Your task to perform on an android device: Open location settings Image 0: 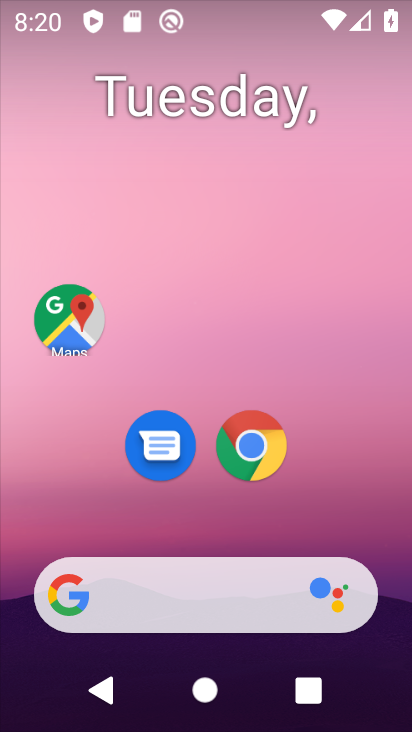
Step 0: drag from (386, 615) to (128, 11)
Your task to perform on an android device: Open location settings Image 1: 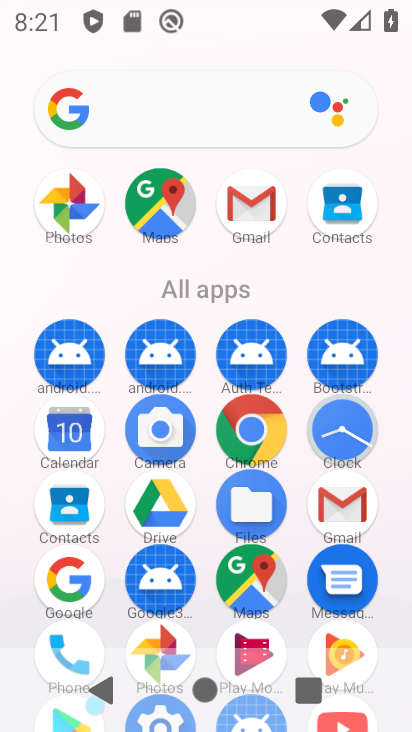
Step 1: click (137, 233)
Your task to perform on an android device: Open location settings Image 2: 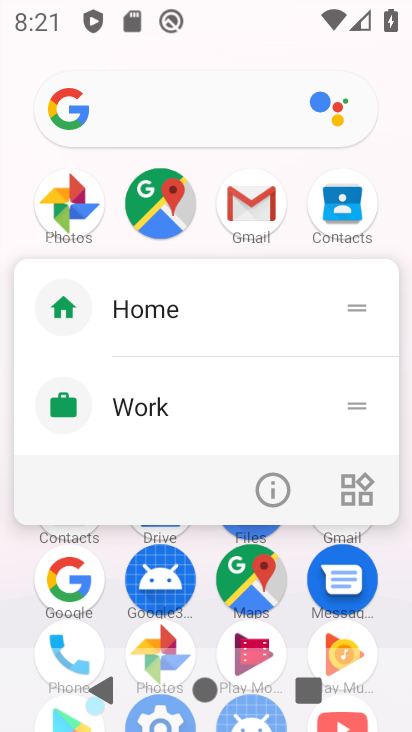
Step 2: click (165, 206)
Your task to perform on an android device: Open location settings Image 3: 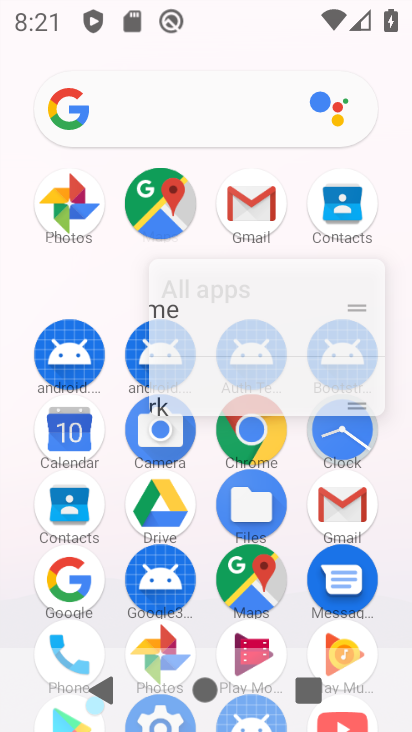
Step 3: click (166, 207)
Your task to perform on an android device: Open location settings Image 4: 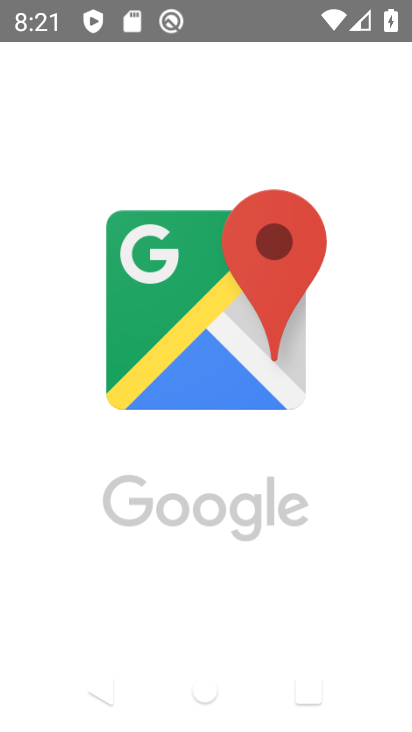
Step 4: click (166, 207)
Your task to perform on an android device: Open location settings Image 5: 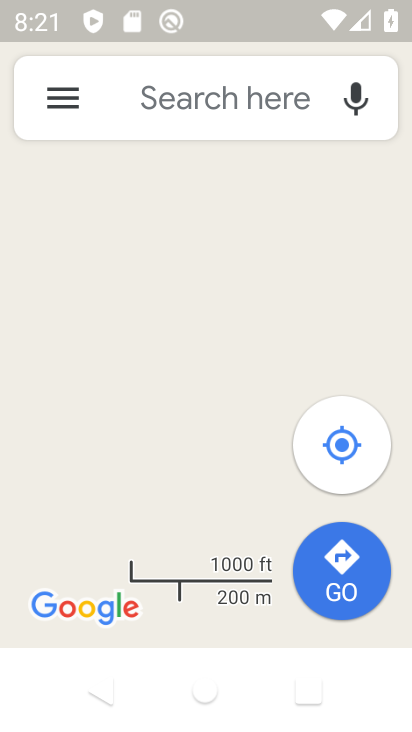
Step 5: click (62, 94)
Your task to perform on an android device: Open location settings Image 6: 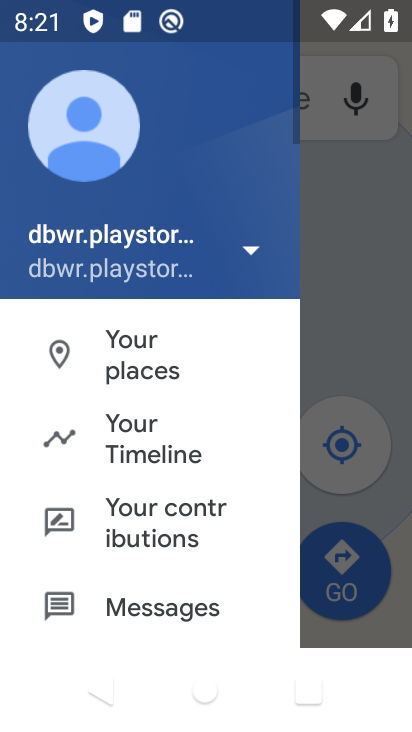
Step 6: click (148, 449)
Your task to perform on an android device: Open location settings Image 7: 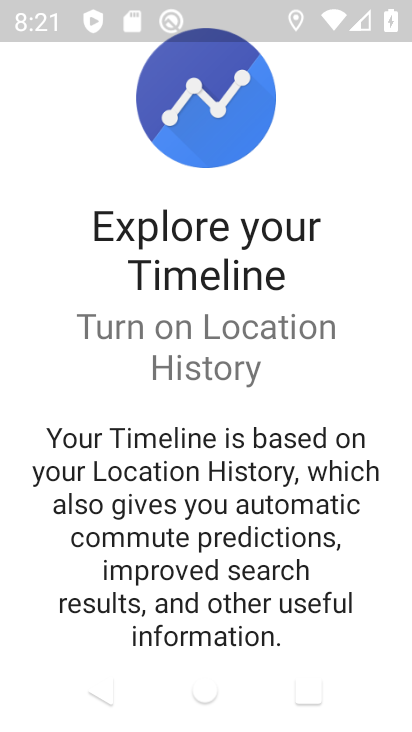
Step 7: drag from (226, 519) to (232, 310)
Your task to perform on an android device: Open location settings Image 8: 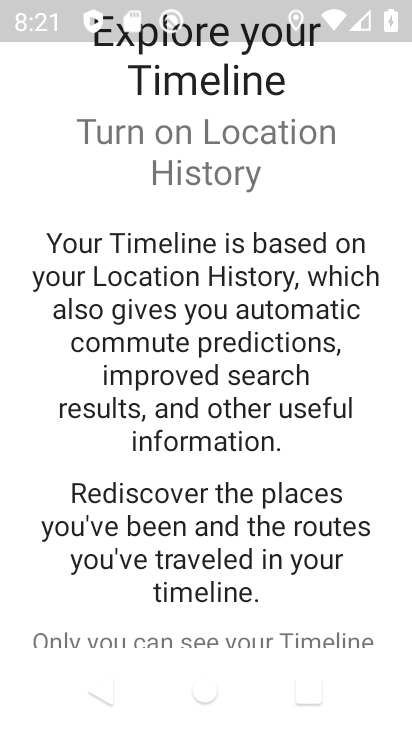
Step 8: drag from (265, 593) to (150, 182)
Your task to perform on an android device: Open location settings Image 9: 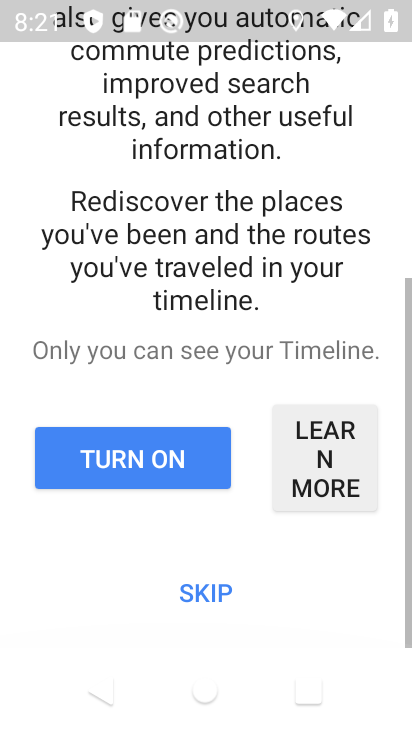
Step 9: drag from (246, 474) to (187, 222)
Your task to perform on an android device: Open location settings Image 10: 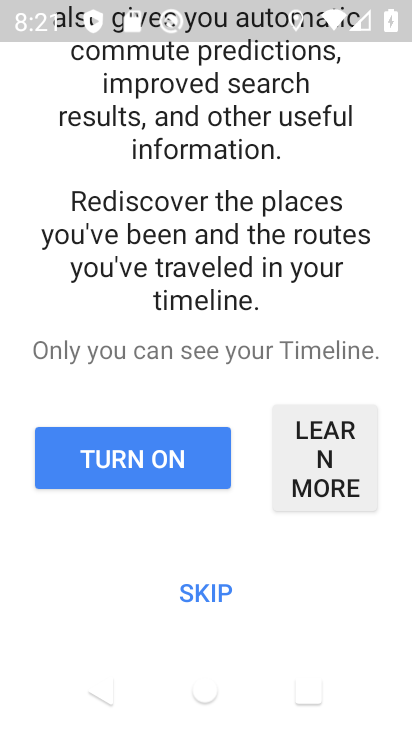
Step 10: click (120, 456)
Your task to perform on an android device: Open location settings Image 11: 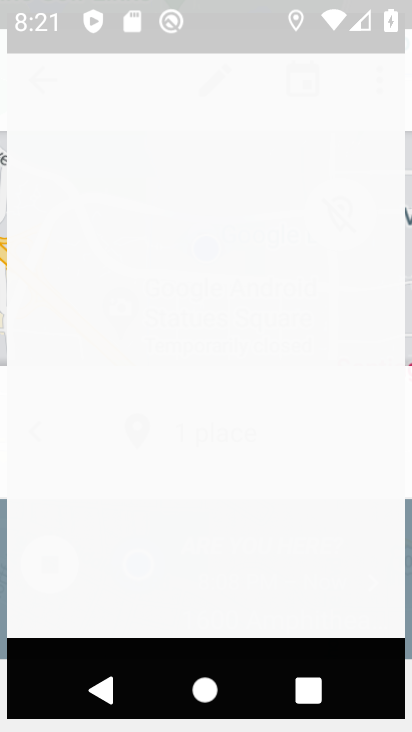
Step 11: click (366, 91)
Your task to perform on an android device: Open location settings Image 12: 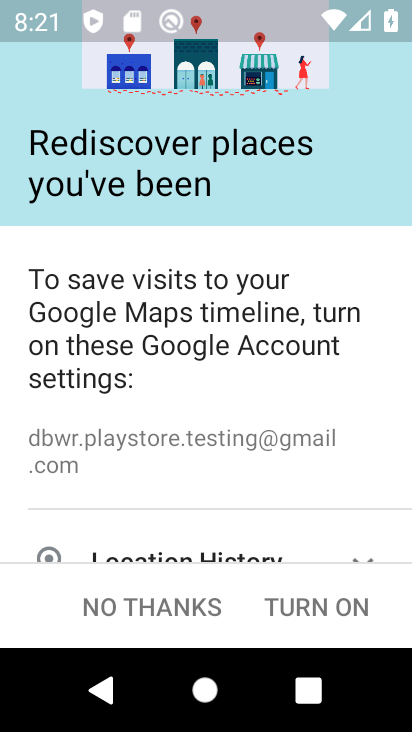
Step 12: press back button
Your task to perform on an android device: Open location settings Image 13: 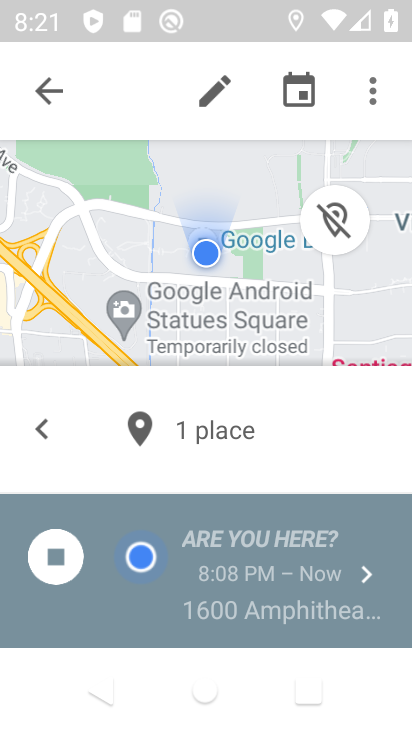
Step 13: press home button
Your task to perform on an android device: Open location settings Image 14: 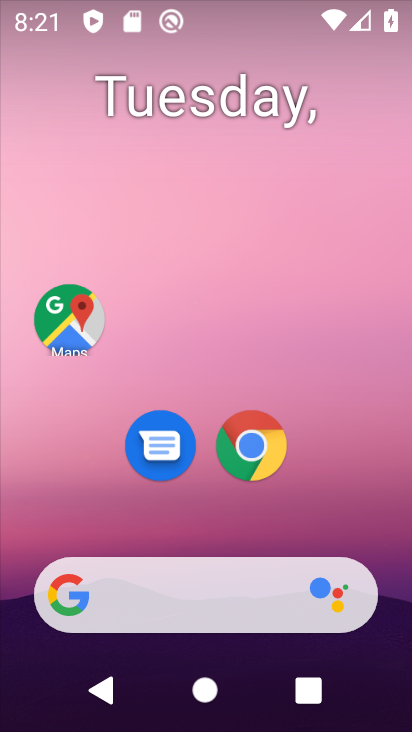
Step 14: drag from (376, 537) to (135, 32)
Your task to perform on an android device: Open location settings Image 15: 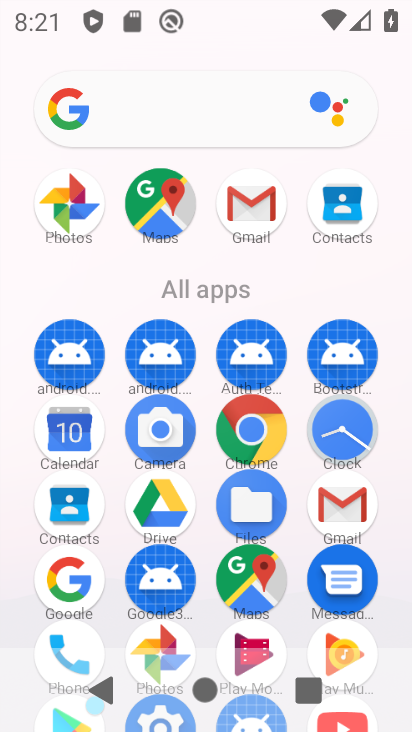
Step 15: drag from (214, 534) to (124, 110)
Your task to perform on an android device: Open location settings Image 16: 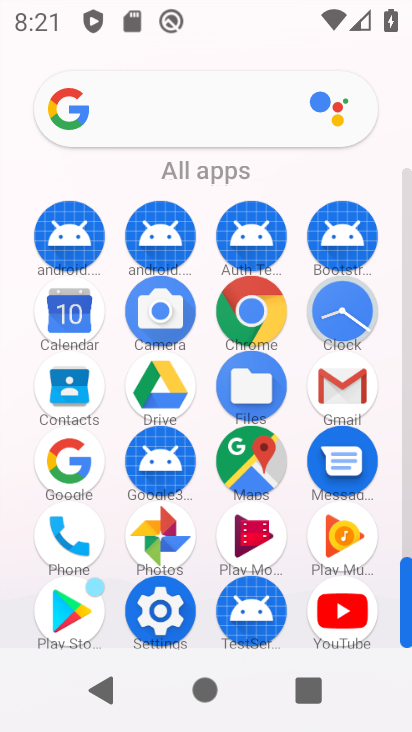
Step 16: drag from (201, 532) to (107, 266)
Your task to perform on an android device: Open location settings Image 17: 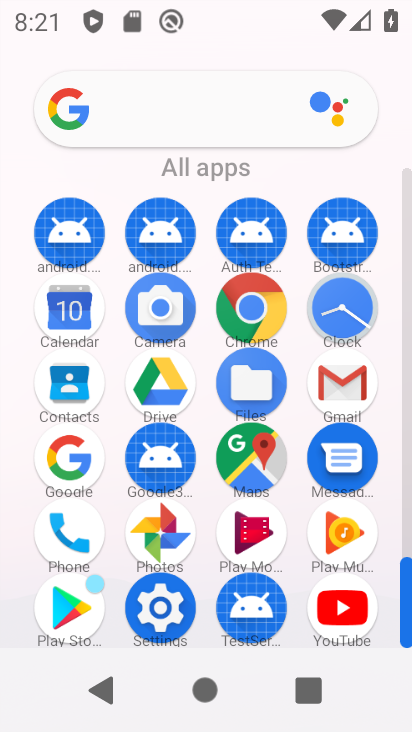
Step 17: click (182, 595)
Your task to perform on an android device: Open location settings Image 18: 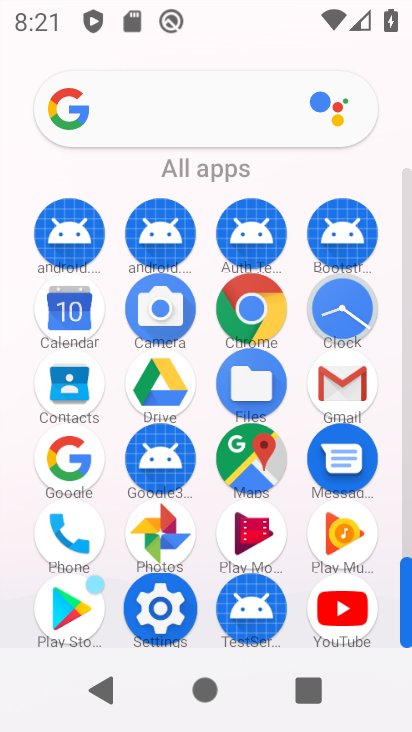
Step 18: click (167, 606)
Your task to perform on an android device: Open location settings Image 19: 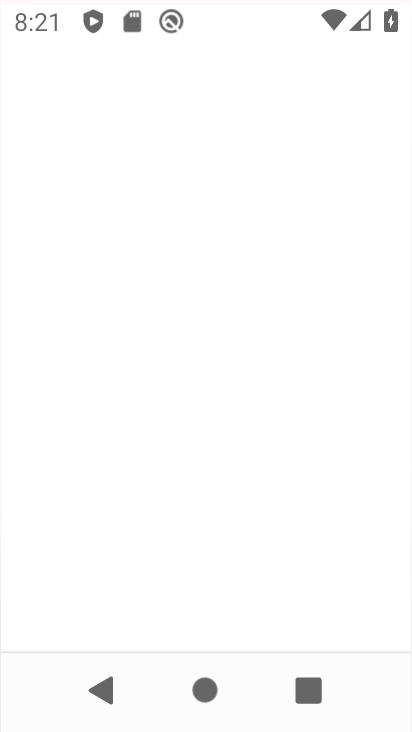
Step 19: click (165, 606)
Your task to perform on an android device: Open location settings Image 20: 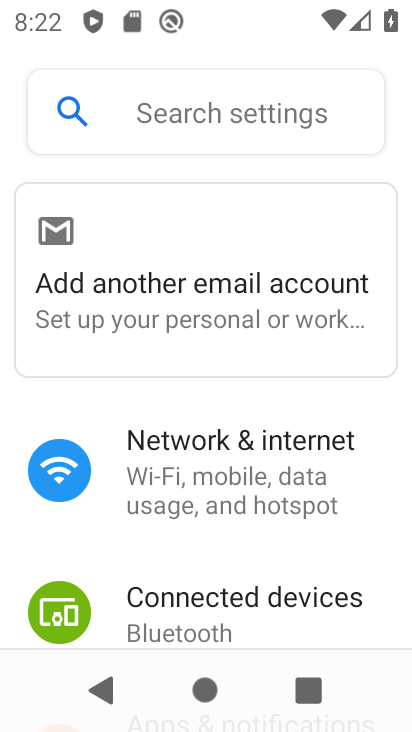
Step 20: drag from (193, 460) to (146, 238)
Your task to perform on an android device: Open location settings Image 21: 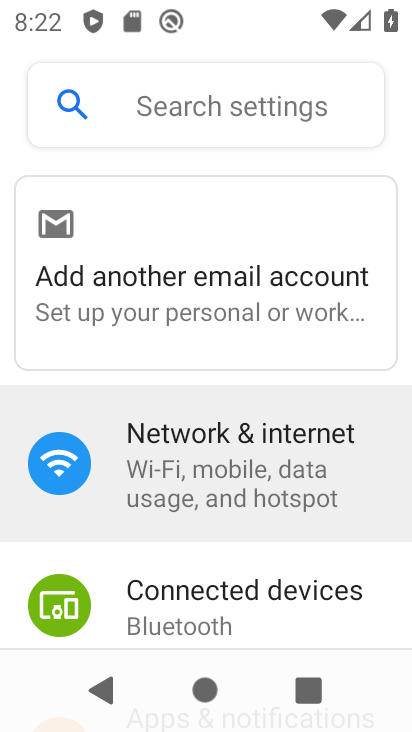
Step 21: drag from (221, 553) to (177, 280)
Your task to perform on an android device: Open location settings Image 22: 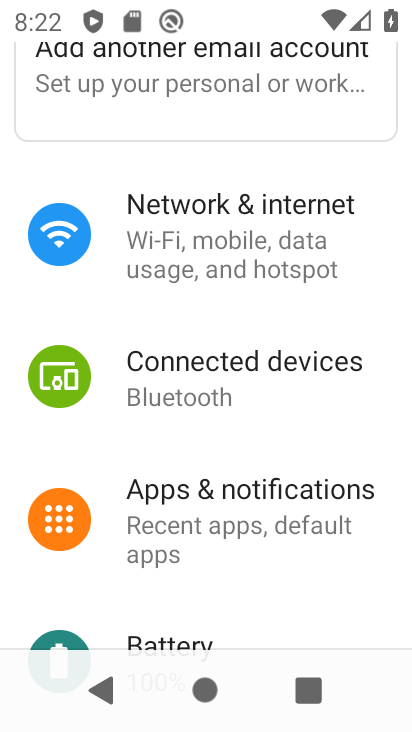
Step 22: drag from (217, 519) to (195, 224)
Your task to perform on an android device: Open location settings Image 23: 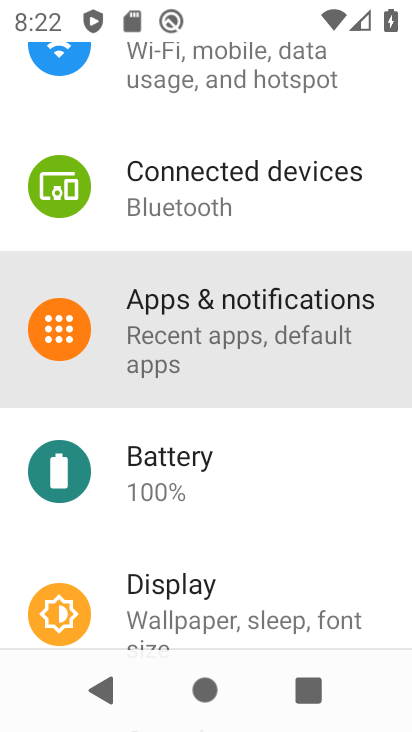
Step 23: drag from (190, 399) to (194, 226)
Your task to perform on an android device: Open location settings Image 24: 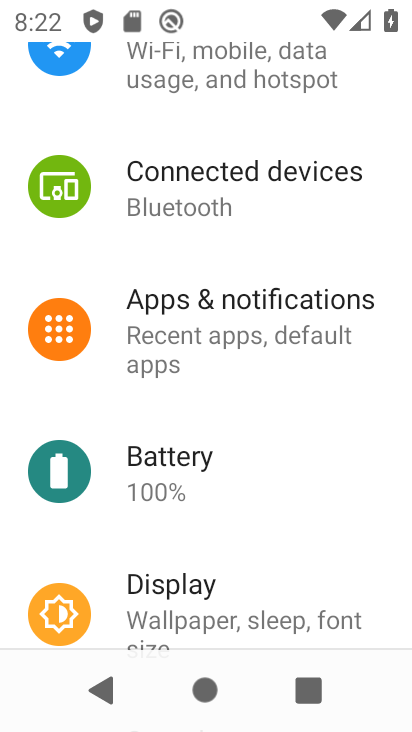
Step 24: drag from (212, 394) to (204, 201)
Your task to perform on an android device: Open location settings Image 25: 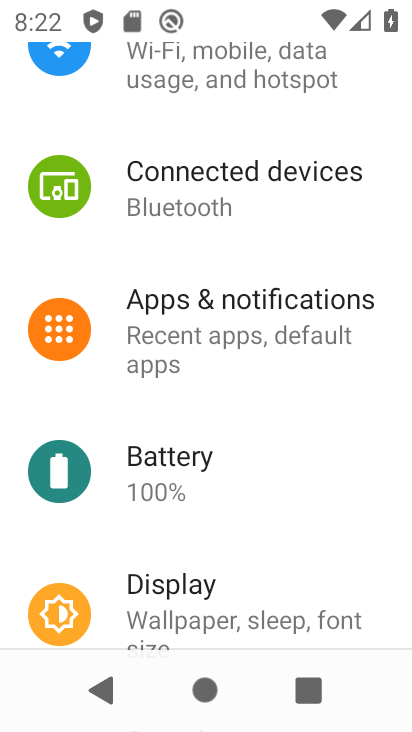
Step 25: drag from (212, 357) to (198, 180)
Your task to perform on an android device: Open location settings Image 26: 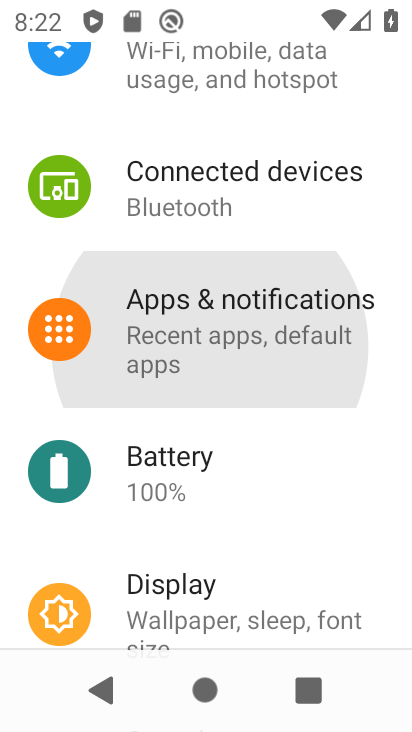
Step 26: drag from (205, 348) to (187, 193)
Your task to perform on an android device: Open location settings Image 27: 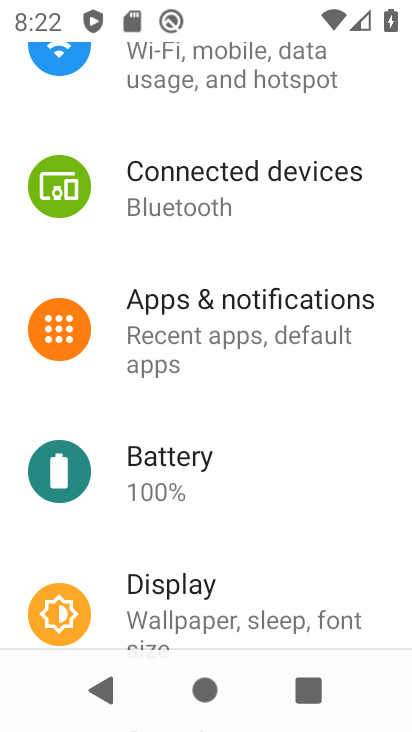
Step 27: drag from (200, 529) to (202, 286)
Your task to perform on an android device: Open location settings Image 28: 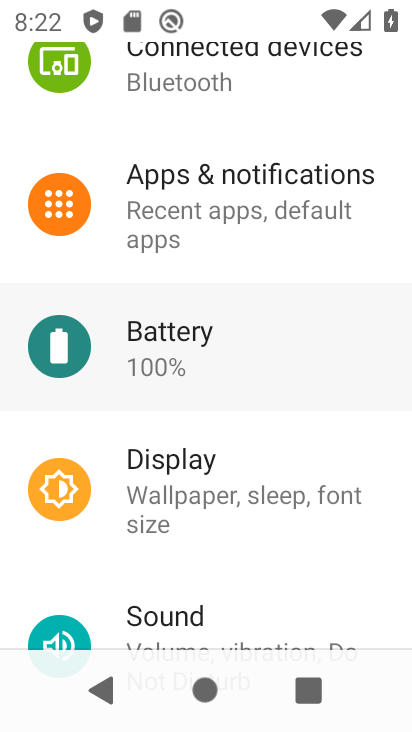
Step 28: drag from (221, 375) to (221, 251)
Your task to perform on an android device: Open location settings Image 29: 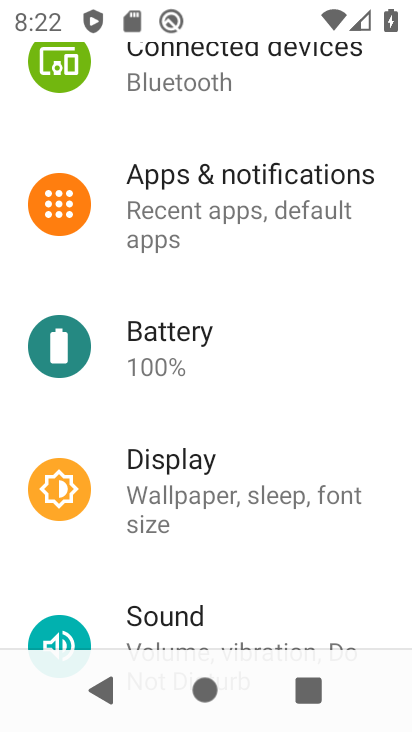
Step 29: drag from (190, 512) to (122, 129)
Your task to perform on an android device: Open location settings Image 30: 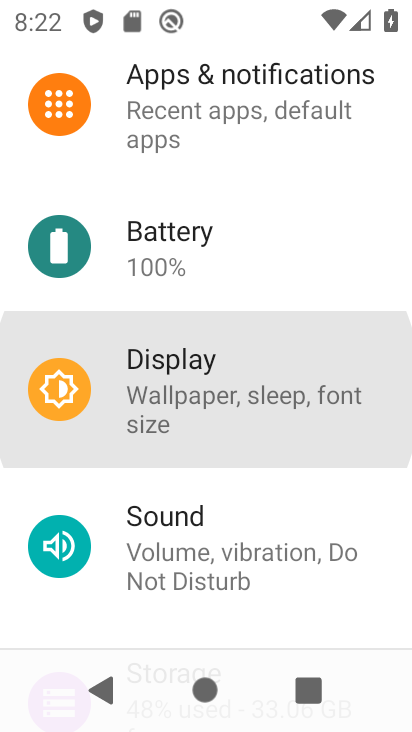
Step 30: drag from (180, 511) to (196, 160)
Your task to perform on an android device: Open location settings Image 31: 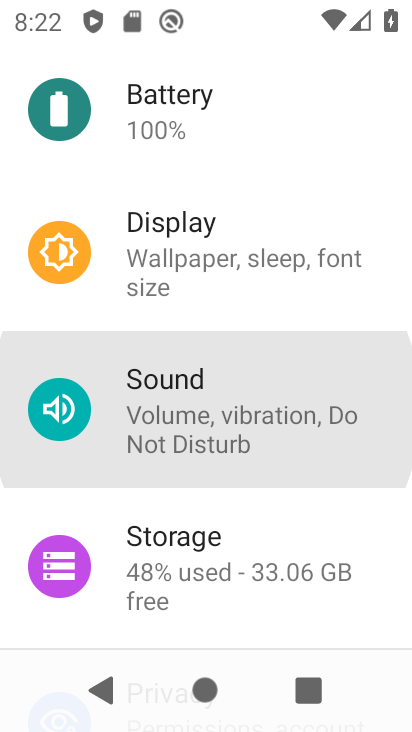
Step 31: drag from (222, 463) to (209, 151)
Your task to perform on an android device: Open location settings Image 32: 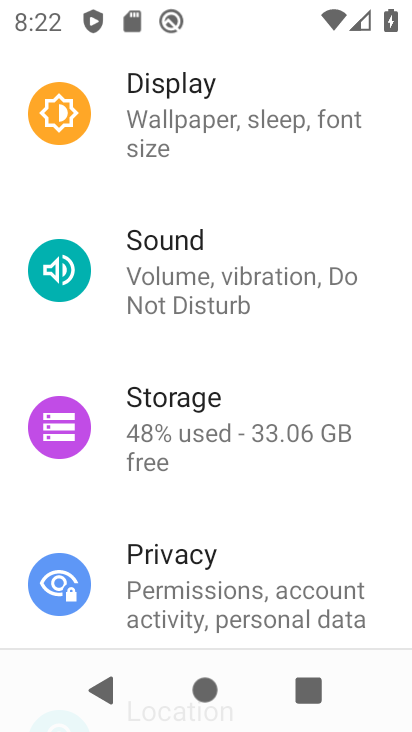
Step 32: drag from (175, 466) to (137, 216)
Your task to perform on an android device: Open location settings Image 33: 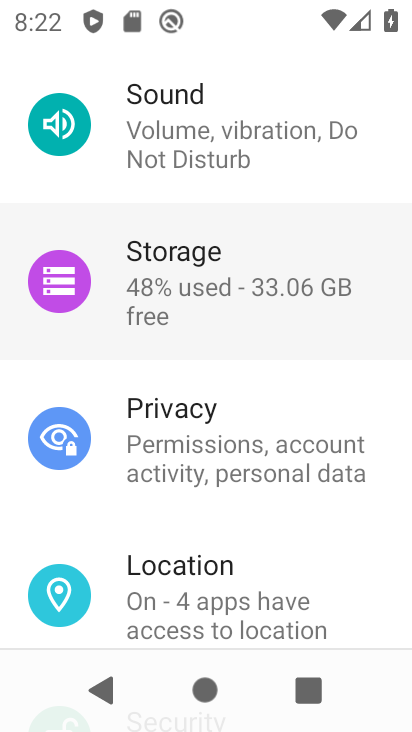
Step 33: drag from (200, 498) to (166, 167)
Your task to perform on an android device: Open location settings Image 34: 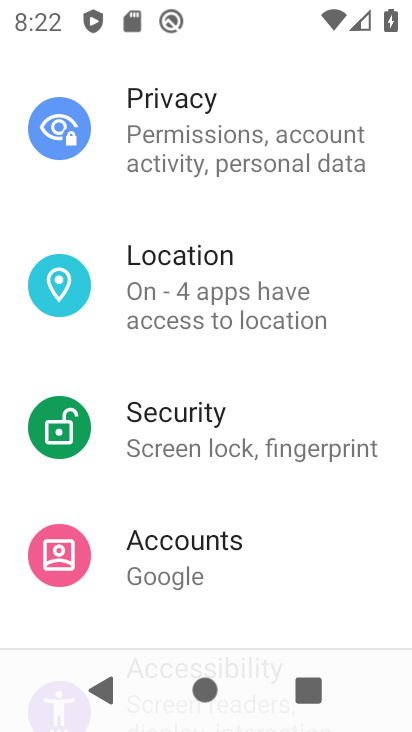
Step 34: click (198, 277)
Your task to perform on an android device: Open location settings Image 35: 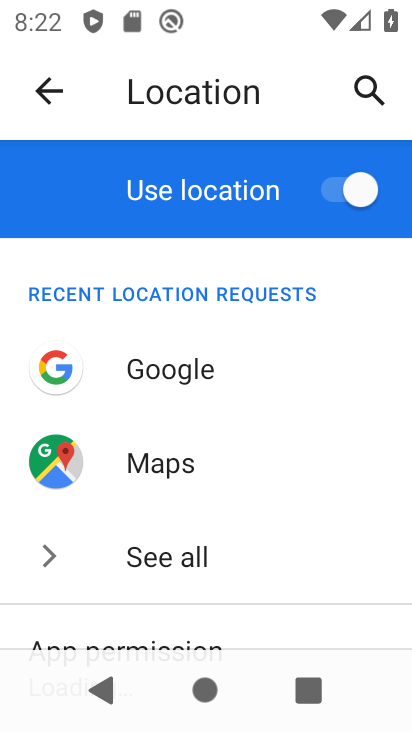
Step 35: task complete